Your task to perform on an android device: make emails show in primary in the gmail app Image 0: 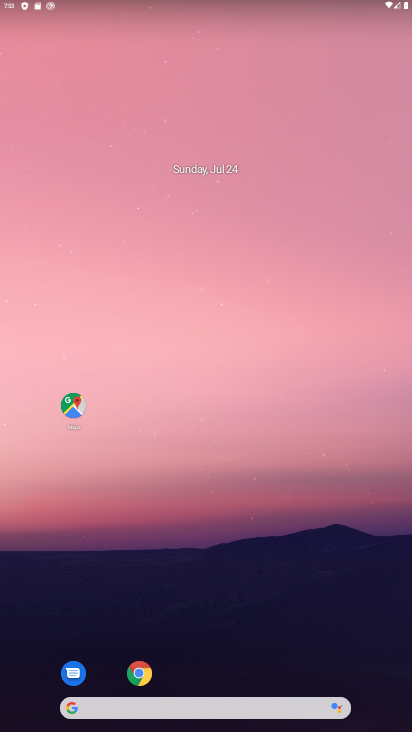
Step 0: drag from (206, 437) to (206, 135)
Your task to perform on an android device: make emails show in primary in the gmail app Image 1: 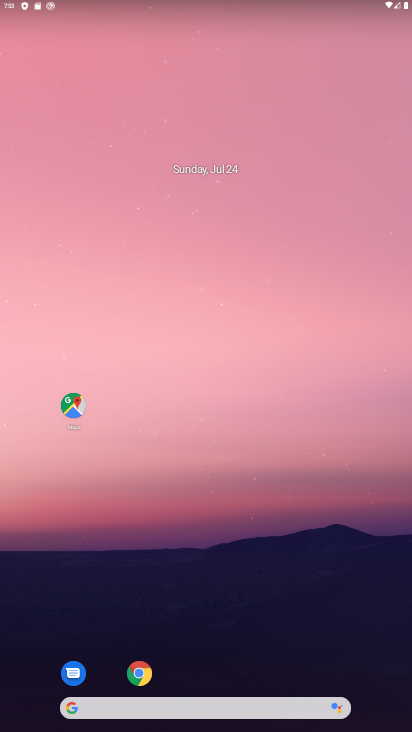
Step 1: drag from (211, 636) to (241, 91)
Your task to perform on an android device: make emails show in primary in the gmail app Image 2: 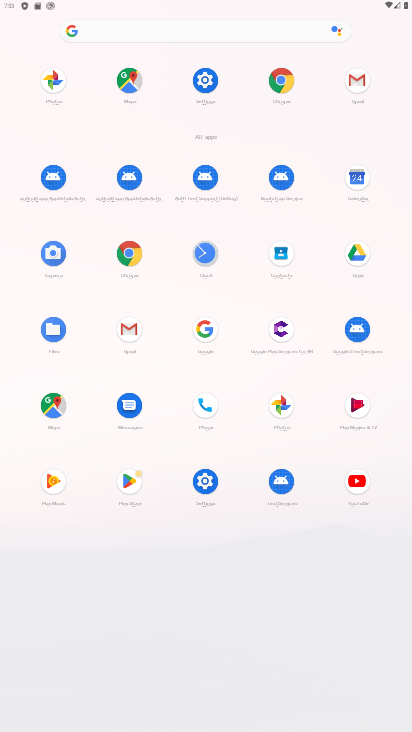
Step 2: click (356, 77)
Your task to perform on an android device: make emails show in primary in the gmail app Image 3: 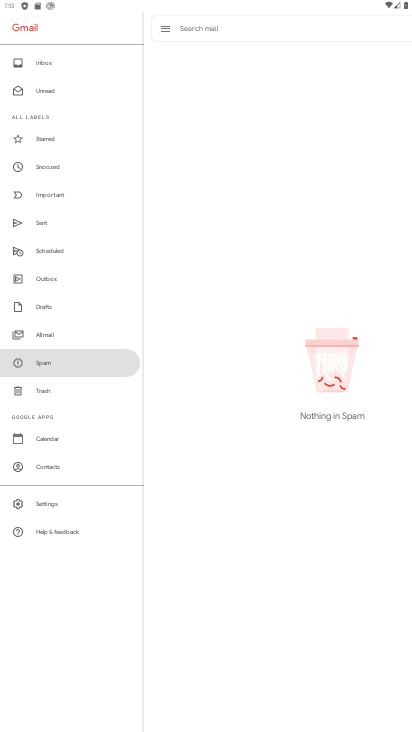
Step 3: click (48, 497)
Your task to perform on an android device: make emails show in primary in the gmail app Image 4: 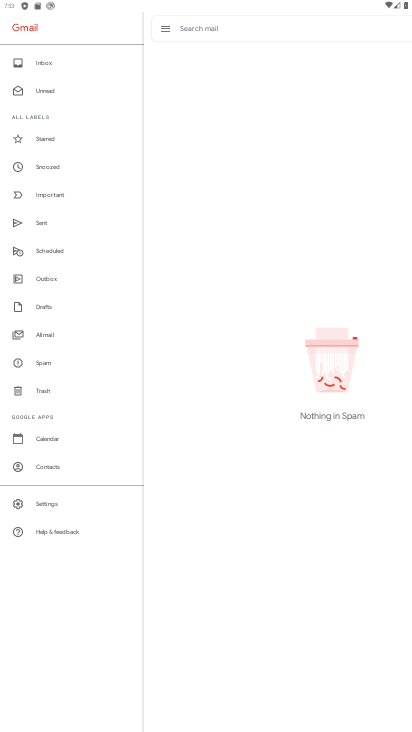
Step 4: click (41, 501)
Your task to perform on an android device: make emails show in primary in the gmail app Image 5: 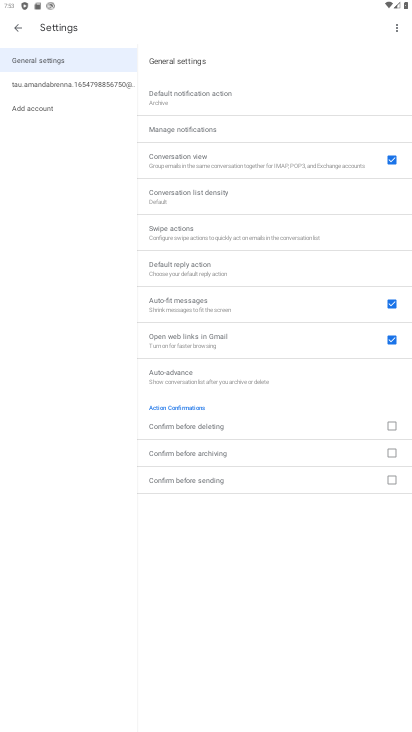
Step 5: click (95, 90)
Your task to perform on an android device: make emails show in primary in the gmail app Image 6: 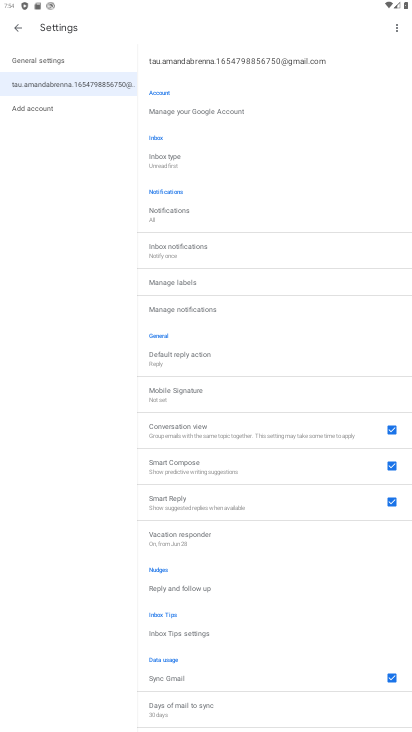
Step 6: task complete